Your task to perform on an android device: see sites visited before in the chrome app Image 0: 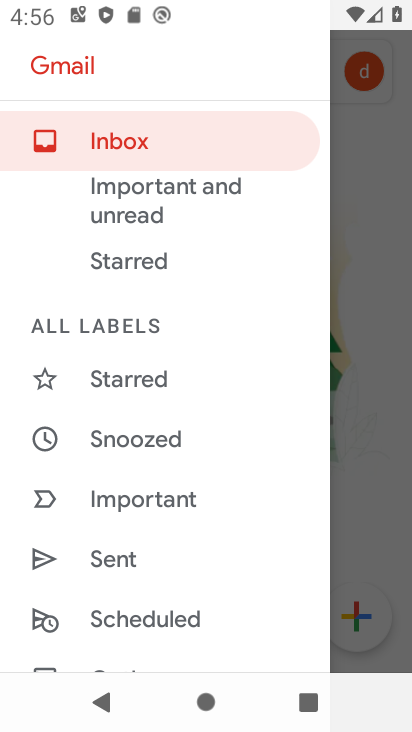
Step 0: press home button
Your task to perform on an android device: see sites visited before in the chrome app Image 1: 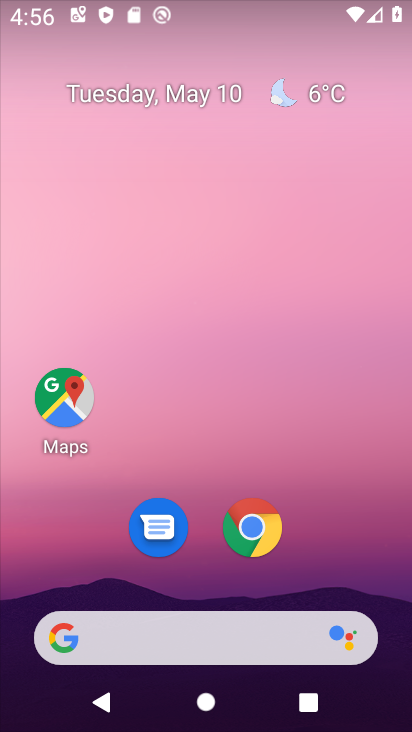
Step 1: click (262, 537)
Your task to perform on an android device: see sites visited before in the chrome app Image 2: 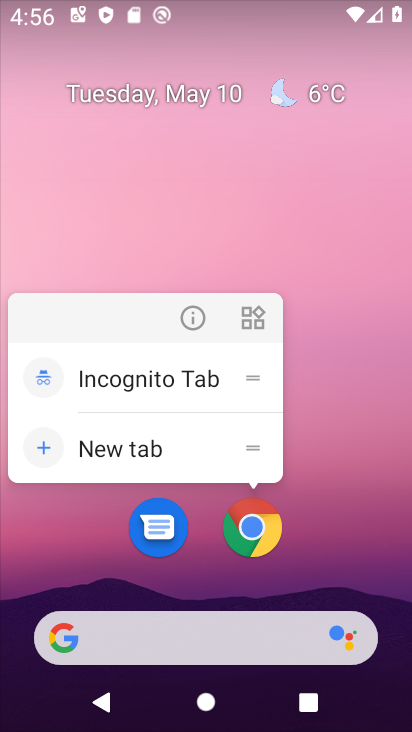
Step 2: click (263, 537)
Your task to perform on an android device: see sites visited before in the chrome app Image 3: 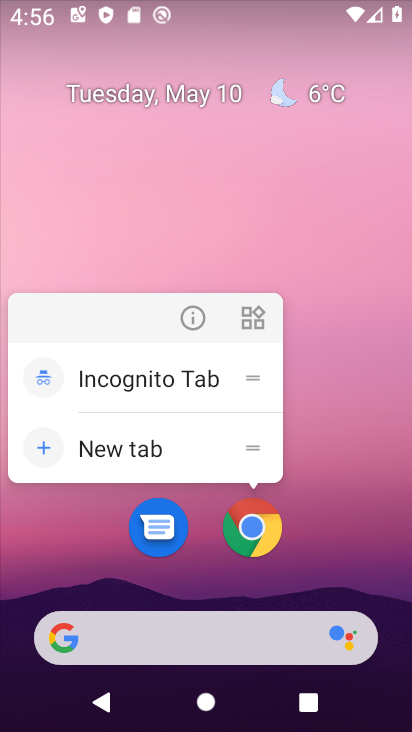
Step 3: click (259, 525)
Your task to perform on an android device: see sites visited before in the chrome app Image 4: 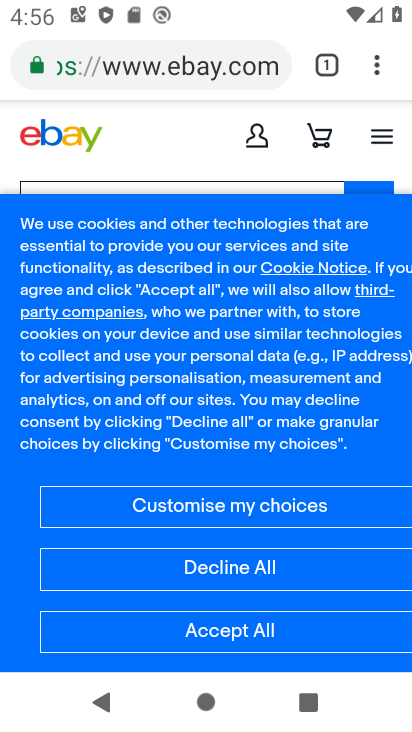
Step 4: click (384, 70)
Your task to perform on an android device: see sites visited before in the chrome app Image 5: 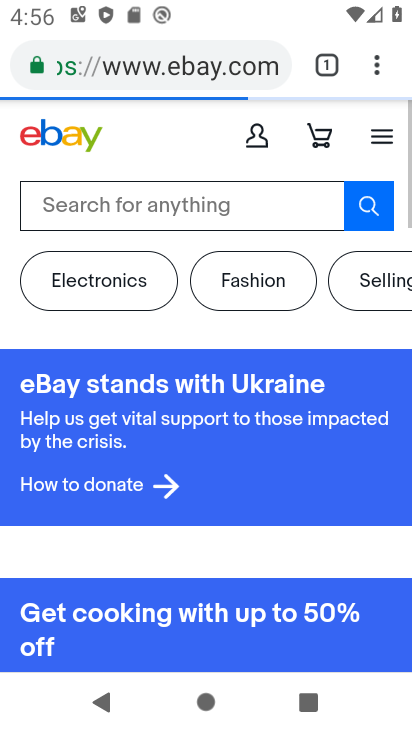
Step 5: click (379, 73)
Your task to perform on an android device: see sites visited before in the chrome app Image 6: 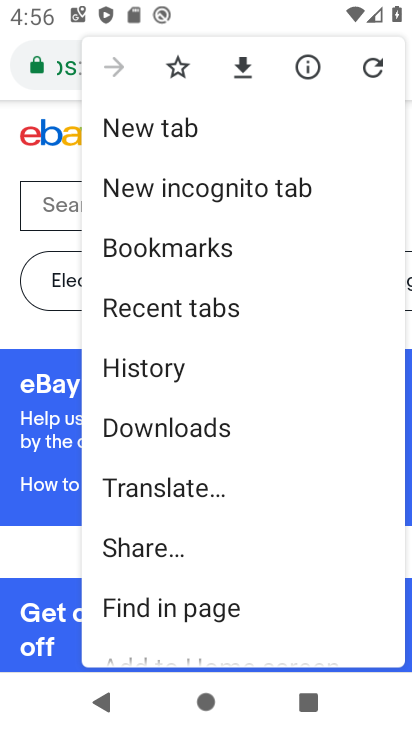
Step 6: click (182, 376)
Your task to perform on an android device: see sites visited before in the chrome app Image 7: 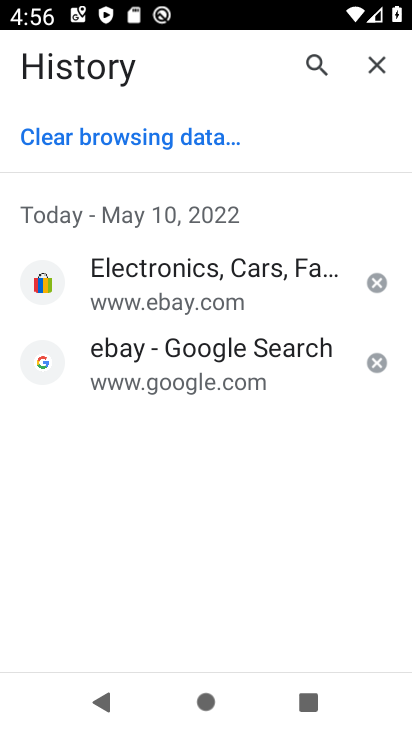
Step 7: task complete